Your task to perform on an android device: Open settings Image 0: 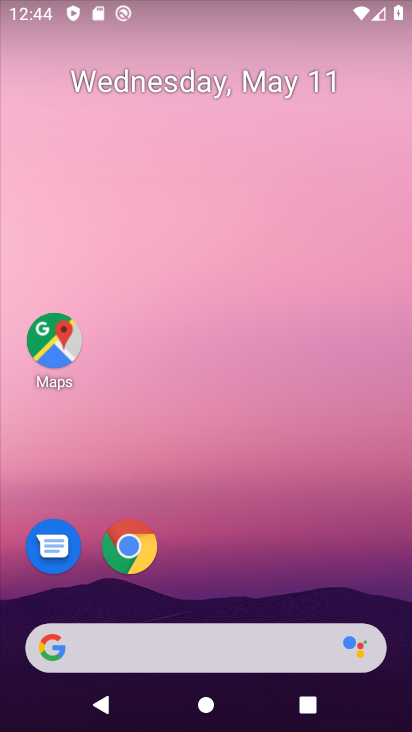
Step 0: drag from (211, 590) to (325, 77)
Your task to perform on an android device: Open settings Image 1: 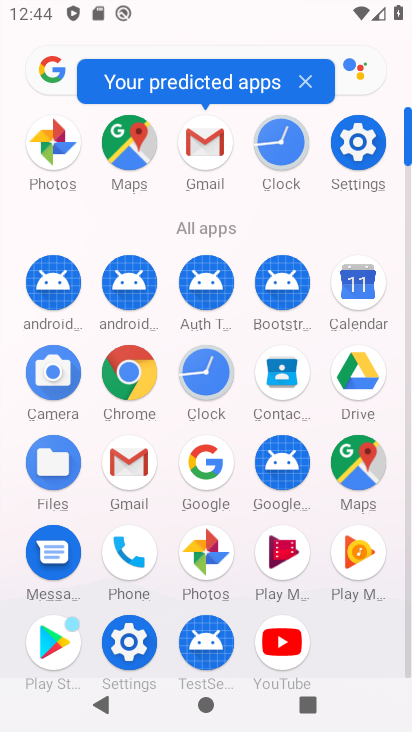
Step 1: click (127, 658)
Your task to perform on an android device: Open settings Image 2: 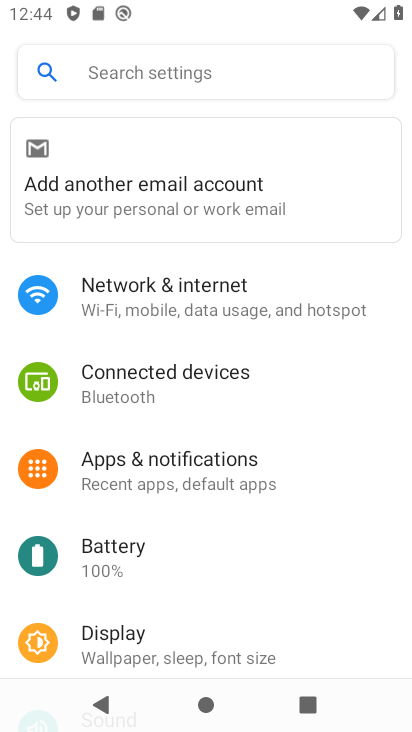
Step 2: task complete